Your task to perform on an android device: Is it going to rain today? Image 0: 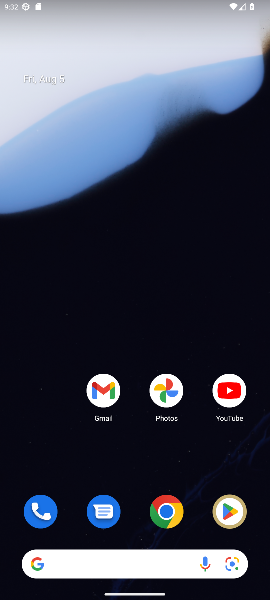
Step 0: drag from (117, 568) to (184, 255)
Your task to perform on an android device: Is it going to rain today? Image 1: 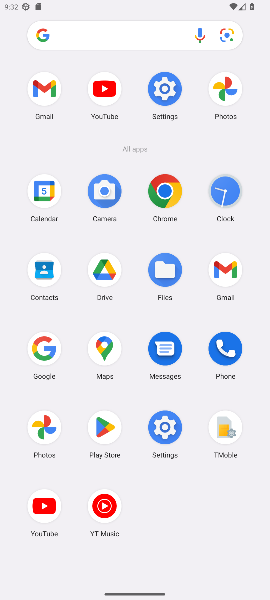
Step 1: click (43, 349)
Your task to perform on an android device: Is it going to rain today? Image 2: 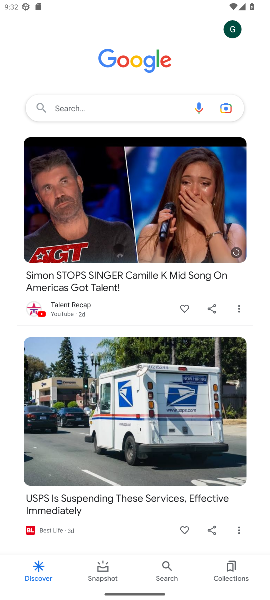
Step 2: click (119, 109)
Your task to perform on an android device: Is it going to rain today? Image 3: 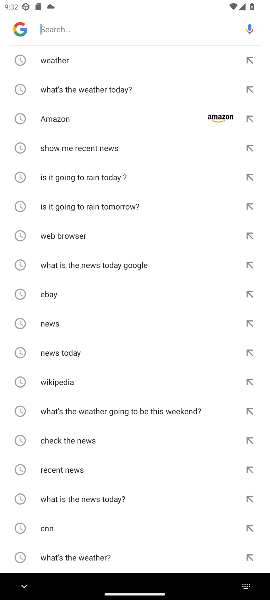
Step 3: type "is it going to rain today?"
Your task to perform on an android device: Is it going to rain today? Image 4: 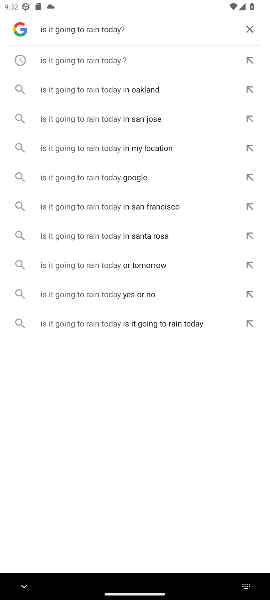
Step 4: click (95, 65)
Your task to perform on an android device: Is it going to rain today? Image 5: 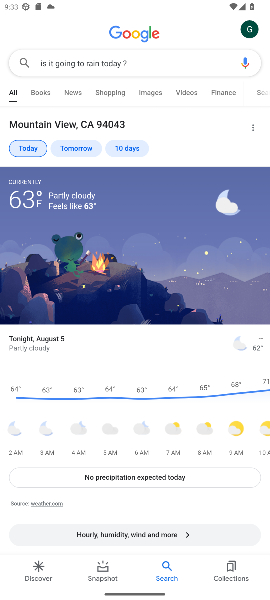
Step 5: task complete